Your task to perform on an android device: Go to Google Image 0: 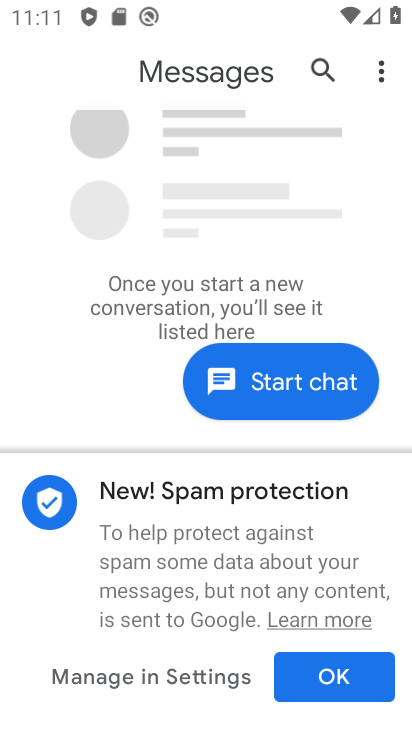
Step 0: task complete